Your task to perform on an android device: Add "duracell triple a" to the cart on bestbuy.com Image 0: 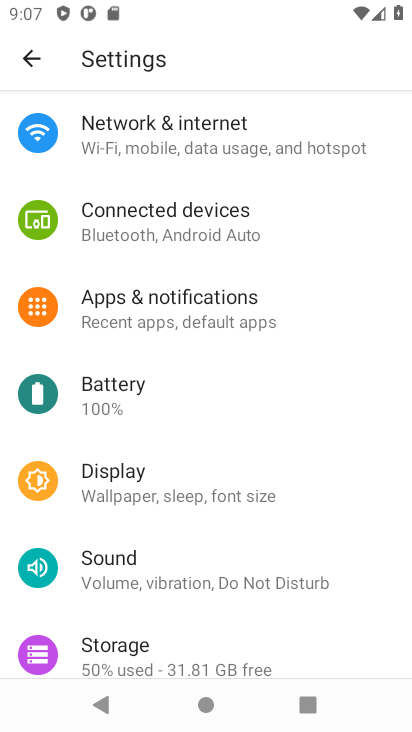
Step 0: press home button
Your task to perform on an android device: Add "duracell triple a" to the cart on bestbuy.com Image 1: 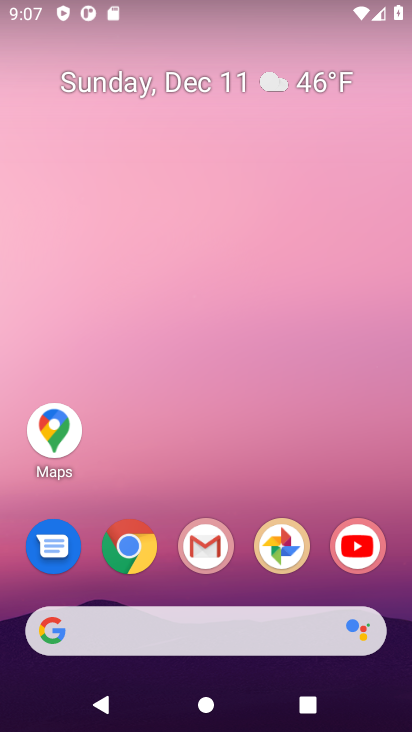
Step 1: click (130, 551)
Your task to perform on an android device: Add "duracell triple a" to the cart on bestbuy.com Image 2: 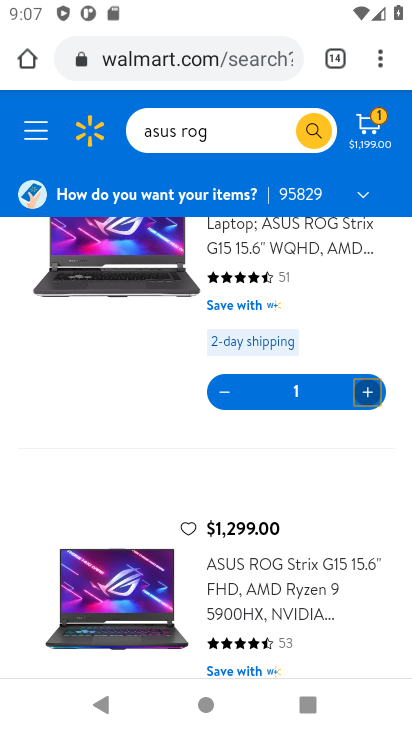
Step 2: click (161, 59)
Your task to perform on an android device: Add "duracell triple a" to the cart on bestbuy.com Image 3: 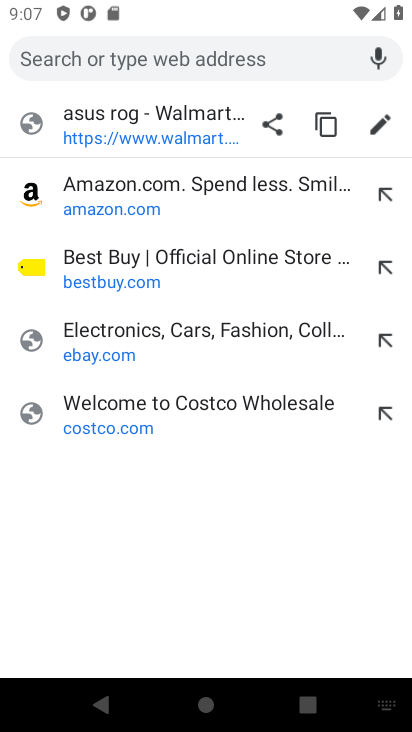
Step 3: click (81, 266)
Your task to perform on an android device: Add "duracell triple a" to the cart on bestbuy.com Image 4: 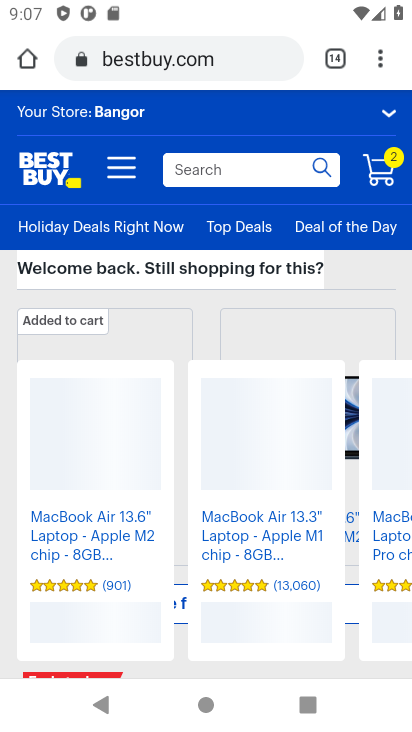
Step 4: click (215, 178)
Your task to perform on an android device: Add "duracell triple a" to the cart on bestbuy.com Image 5: 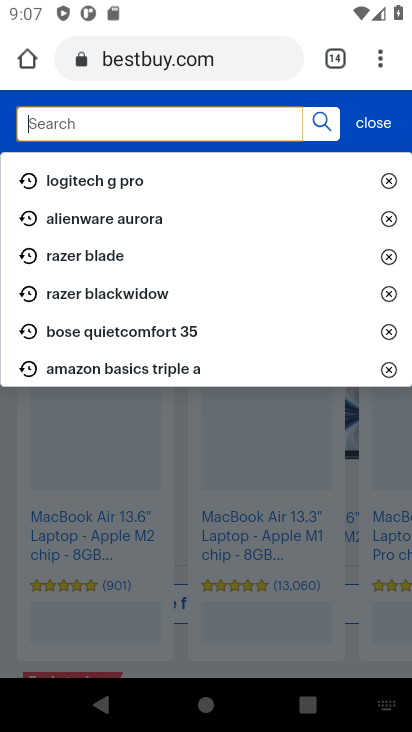
Step 5: type "duracell triple a"
Your task to perform on an android device: Add "duracell triple a" to the cart on bestbuy.com Image 6: 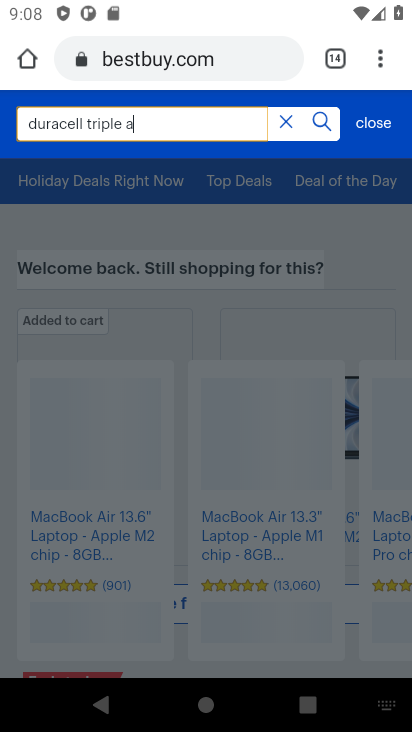
Step 6: click (322, 118)
Your task to perform on an android device: Add "duracell triple a" to the cart on bestbuy.com Image 7: 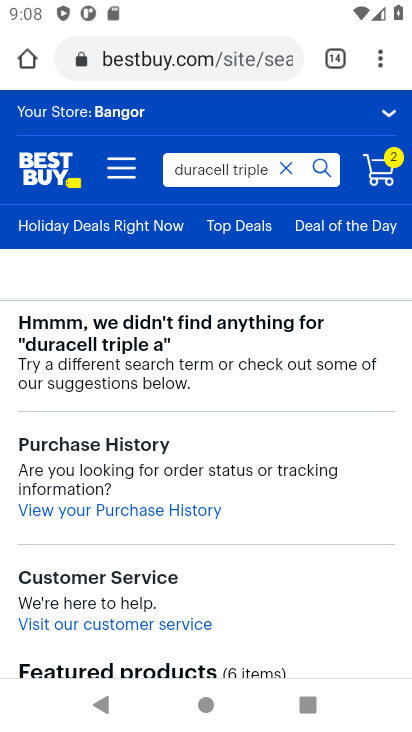
Step 7: task complete